Your task to perform on an android device: Open Youtube and go to the subscriptions tab Image 0: 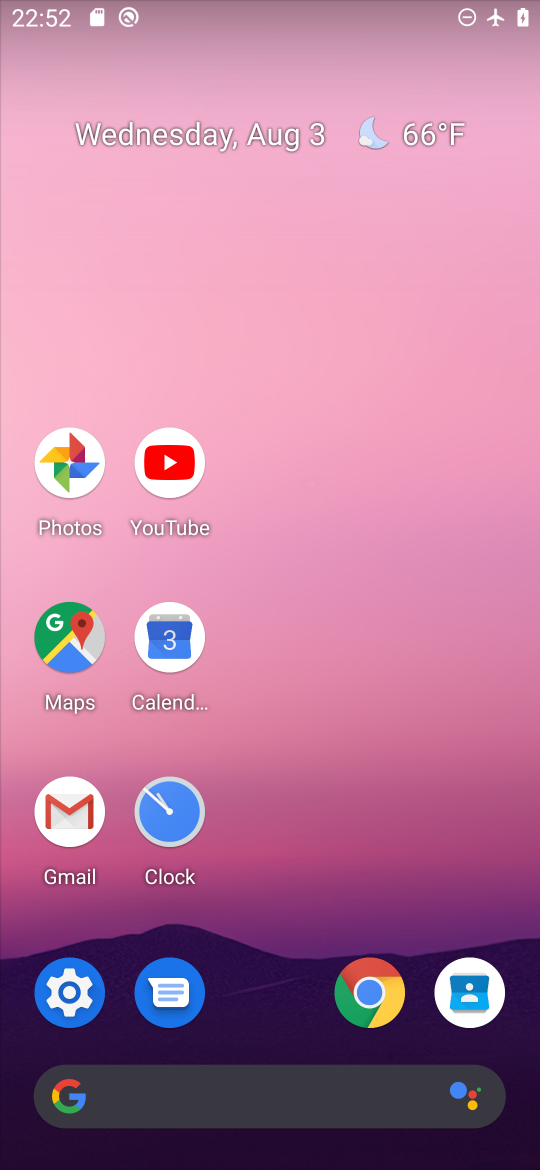
Step 0: click (166, 459)
Your task to perform on an android device: Open Youtube and go to the subscriptions tab Image 1: 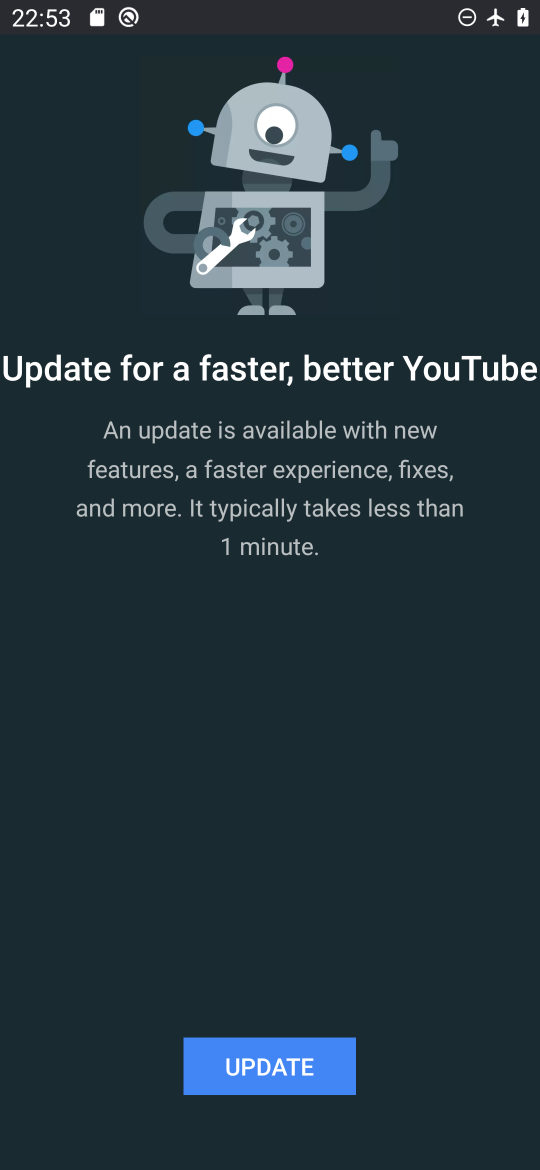
Step 1: click (285, 1065)
Your task to perform on an android device: Open Youtube and go to the subscriptions tab Image 2: 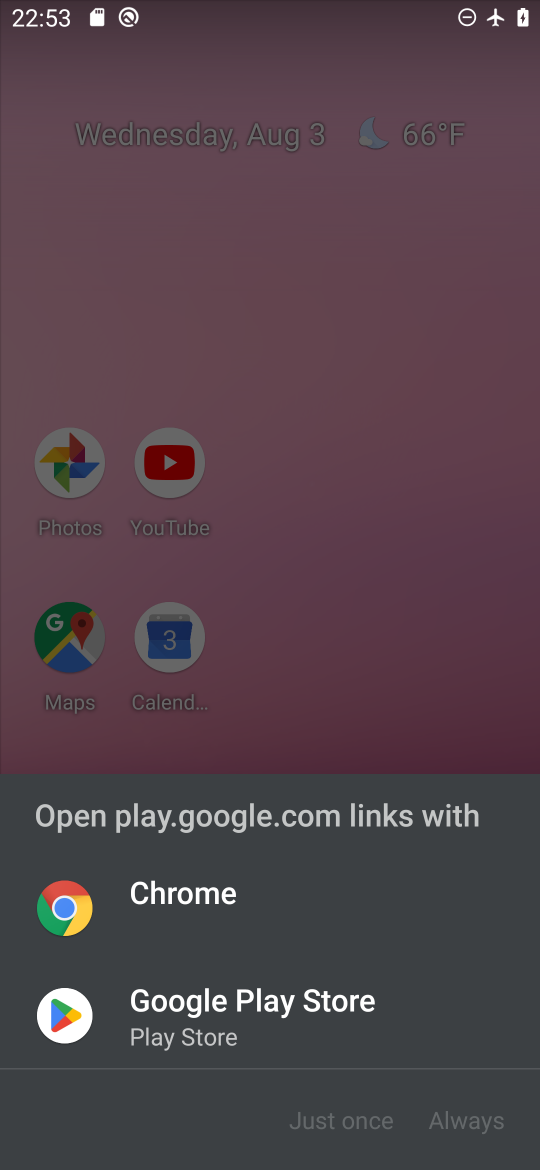
Step 2: click (218, 996)
Your task to perform on an android device: Open Youtube and go to the subscriptions tab Image 3: 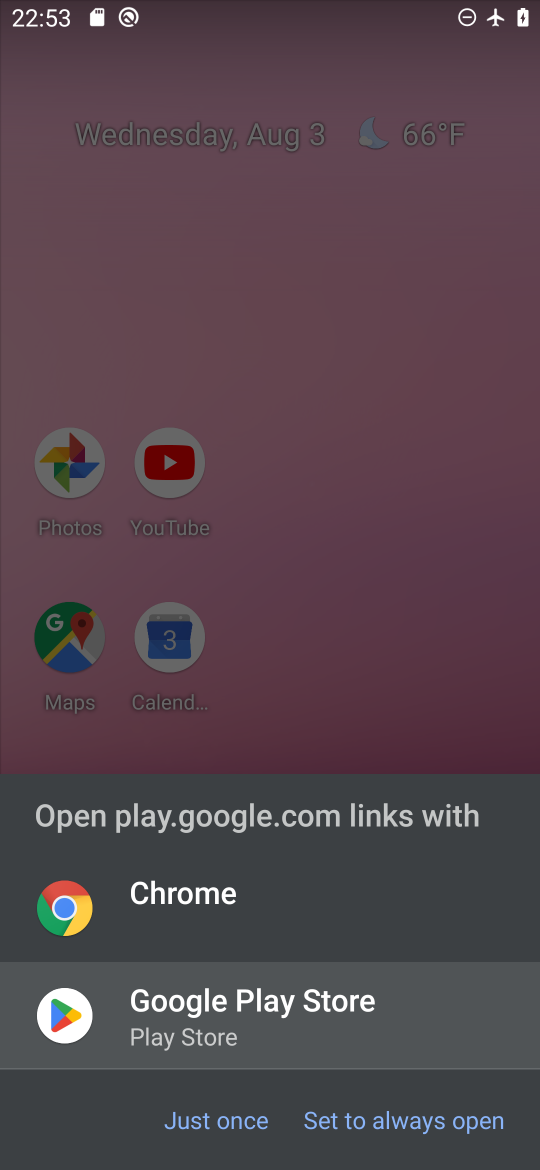
Step 3: click (244, 1116)
Your task to perform on an android device: Open Youtube and go to the subscriptions tab Image 4: 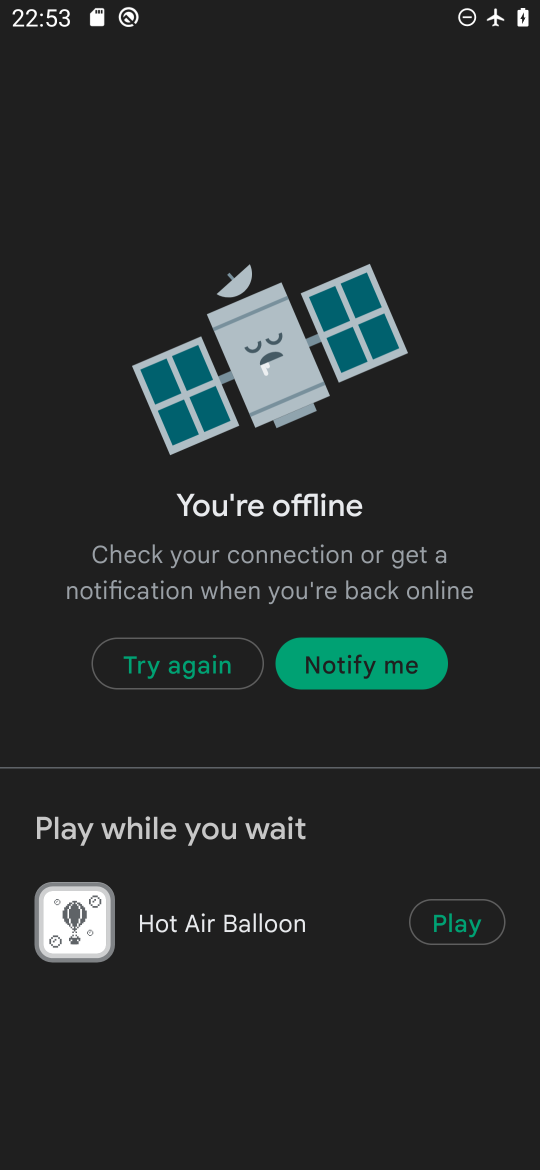
Step 4: click (185, 655)
Your task to perform on an android device: Open Youtube and go to the subscriptions tab Image 5: 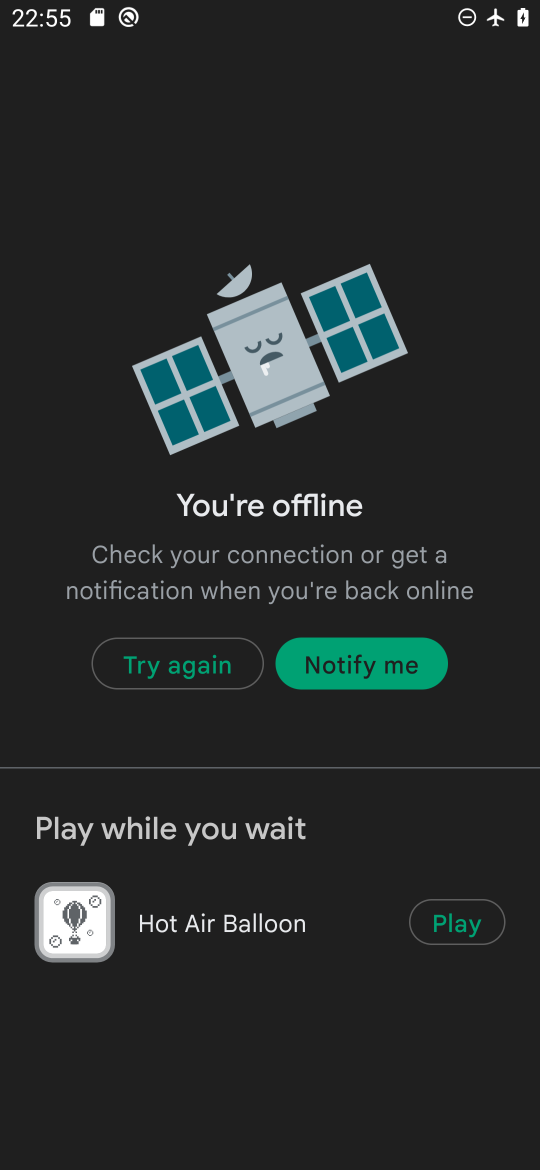
Step 5: click (186, 668)
Your task to perform on an android device: Open Youtube and go to the subscriptions tab Image 6: 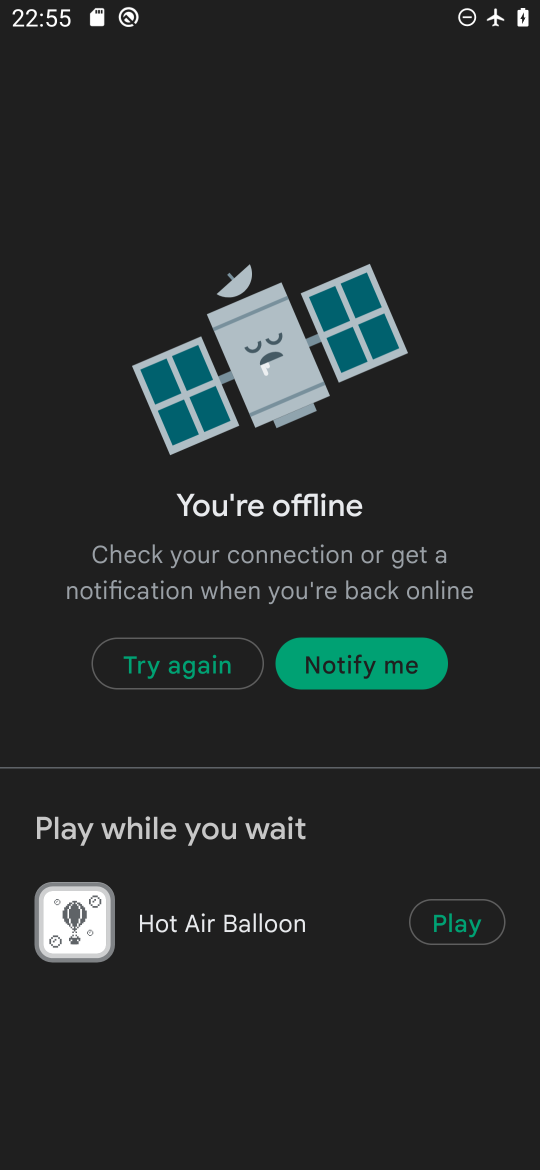
Step 6: task complete